Your task to perform on an android device: toggle location history Image 0: 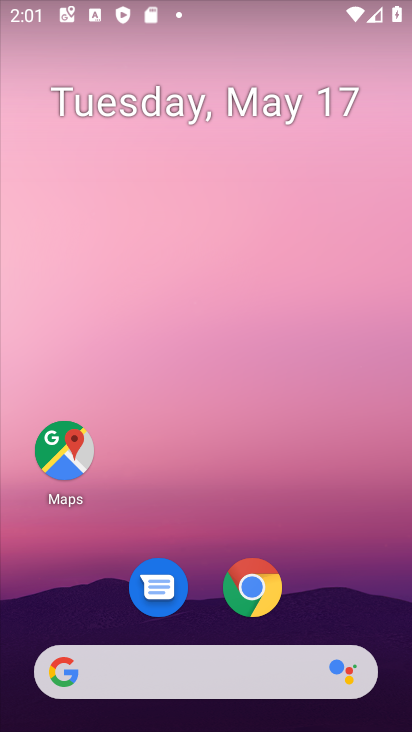
Step 0: drag from (166, 478) to (312, 0)
Your task to perform on an android device: toggle location history Image 1: 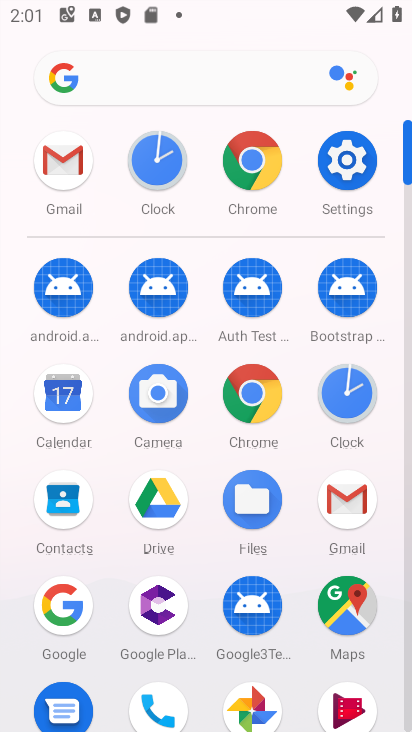
Step 1: click (349, 157)
Your task to perform on an android device: toggle location history Image 2: 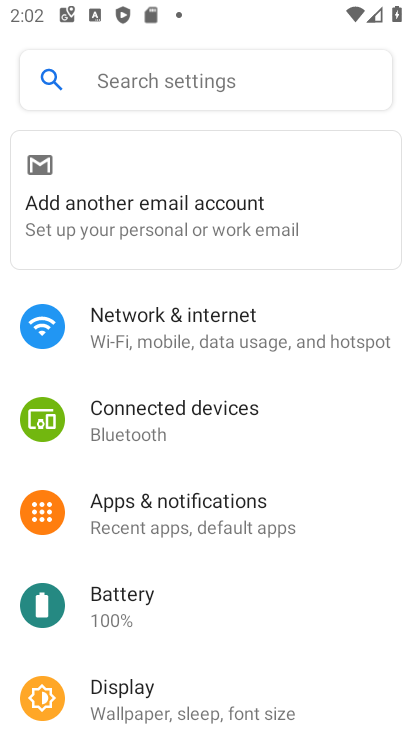
Step 2: drag from (221, 560) to (293, 169)
Your task to perform on an android device: toggle location history Image 3: 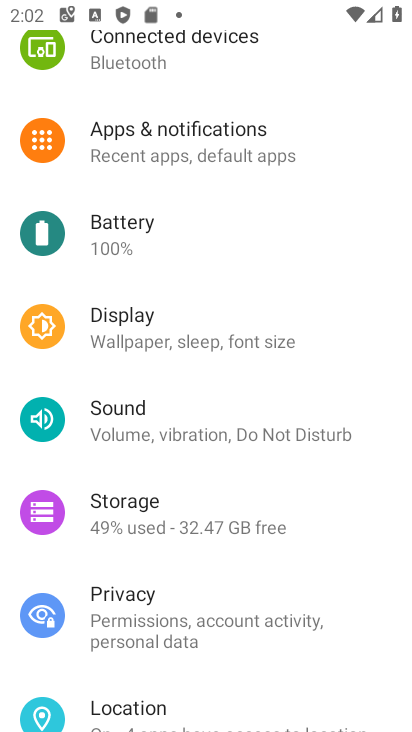
Step 3: click (147, 693)
Your task to perform on an android device: toggle location history Image 4: 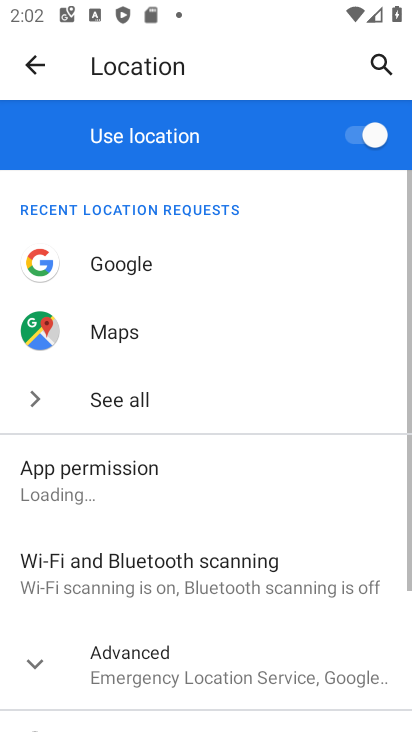
Step 4: drag from (175, 644) to (309, 217)
Your task to perform on an android device: toggle location history Image 5: 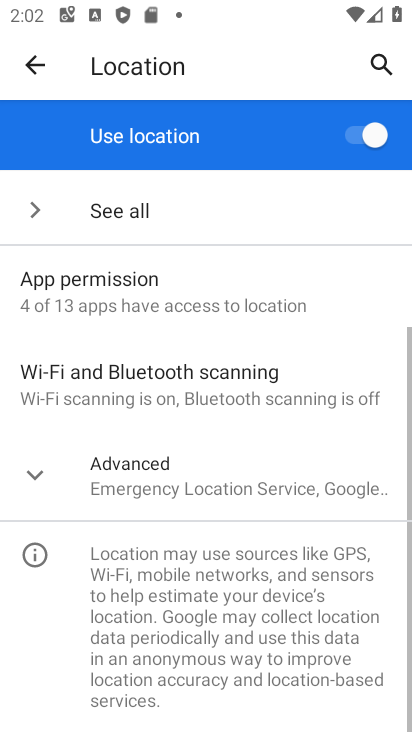
Step 5: click (199, 483)
Your task to perform on an android device: toggle location history Image 6: 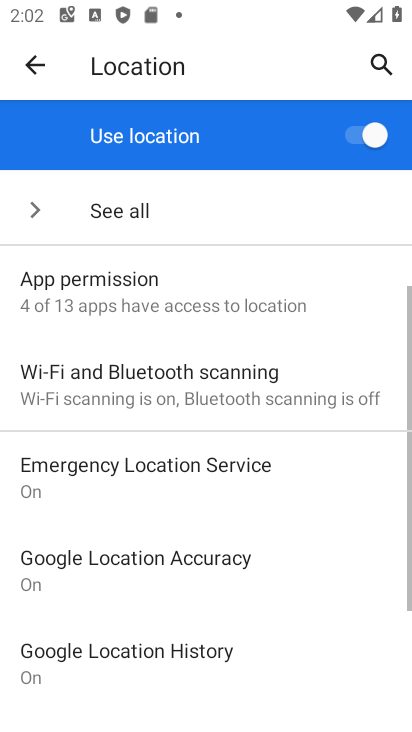
Step 6: drag from (198, 483) to (262, 138)
Your task to perform on an android device: toggle location history Image 7: 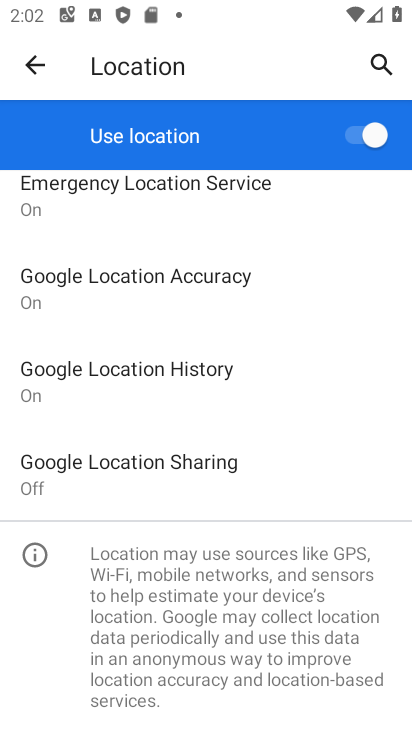
Step 7: click (219, 376)
Your task to perform on an android device: toggle location history Image 8: 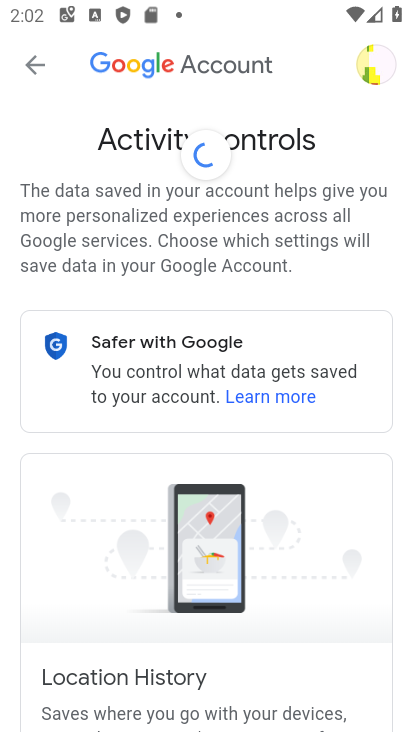
Step 8: drag from (282, 478) to (322, 103)
Your task to perform on an android device: toggle location history Image 9: 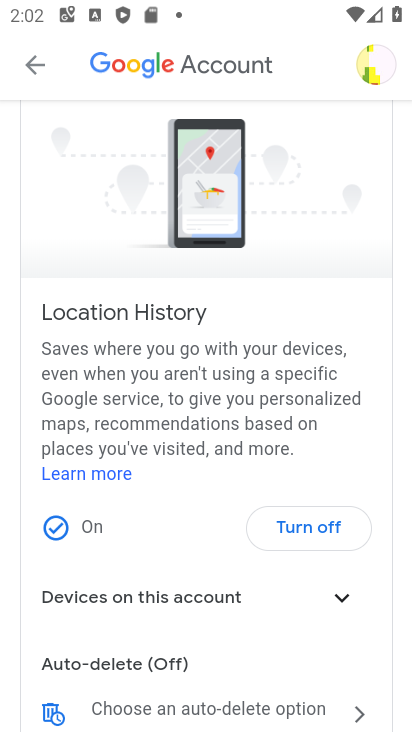
Step 9: click (303, 522)
Your task to perform on an android device: toggle location history Image 10: 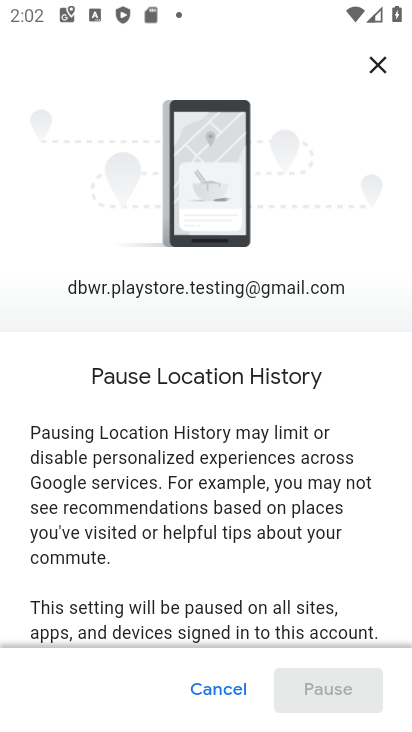
Step 10: drag from (298, 596) to (363, 88)
Your task to perform on an android device: toggle location history Image 11: 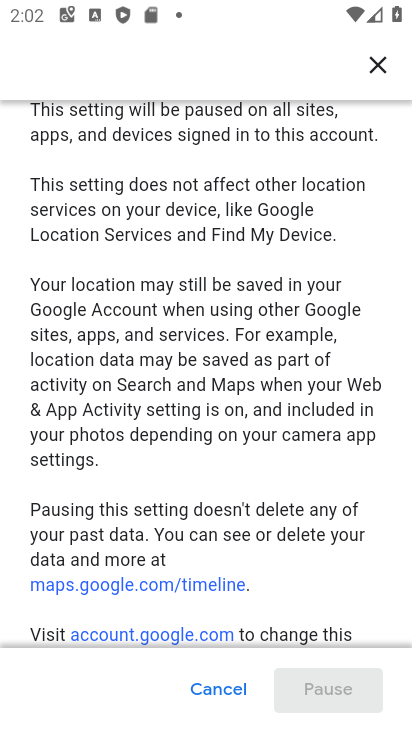
Step 11: drag from (272, 459) to (369, 88)
Your task to perform on an android device: toggle location history Image 12: 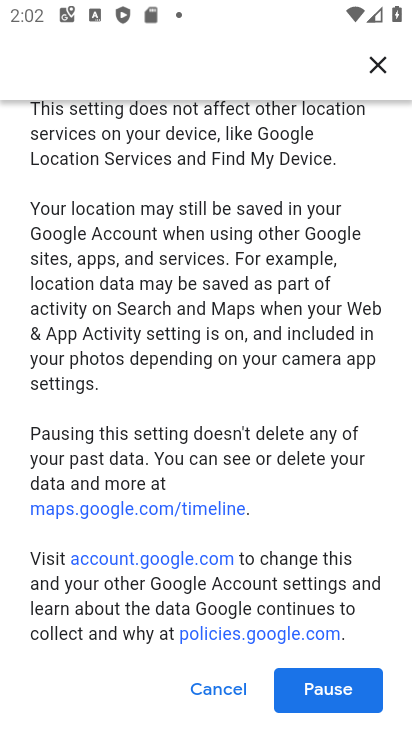
Step 12: click (353, 698)
Your task to perform on an android device: toggle location history Image 13: 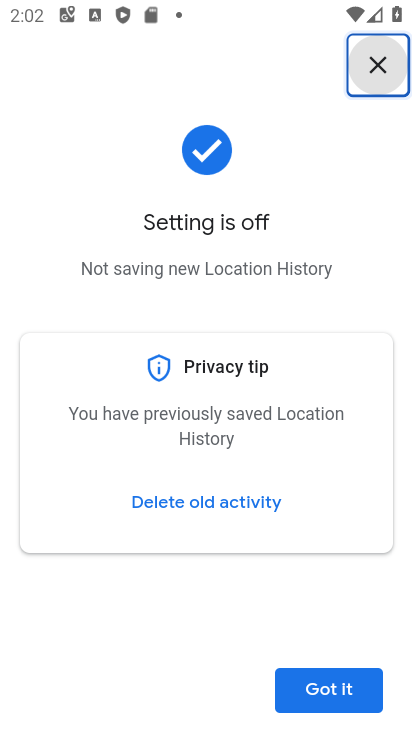
Step 13: click (359, 696)
Your task to perform on an android device: toggle location history Image 14: 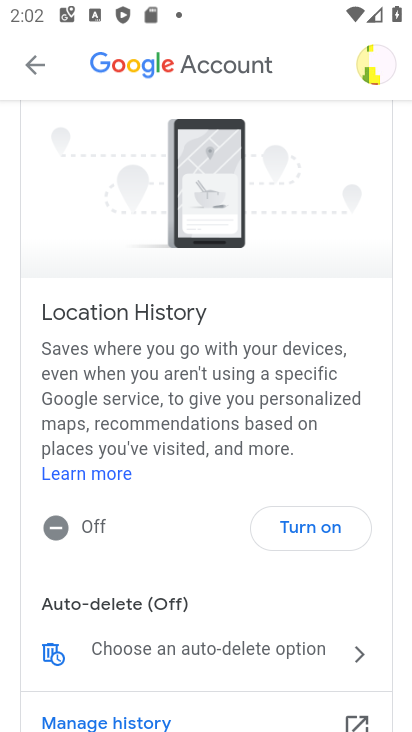
Step 14: task complete